Your task to perform on an android device: set an alarm Image 0: 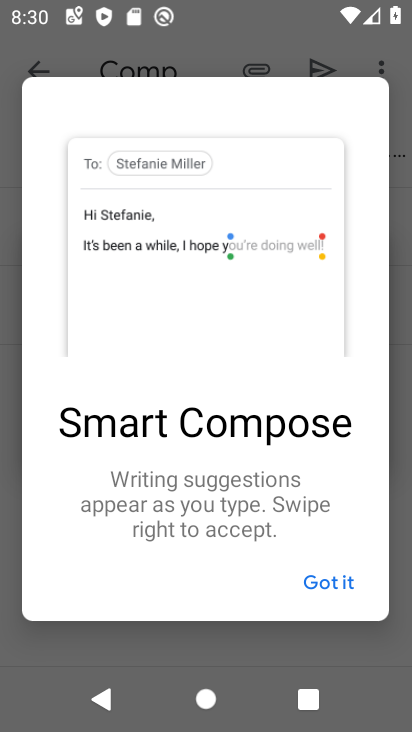
Step 0: press home button
Your task to perform on an android device: set an alarm Image 1: 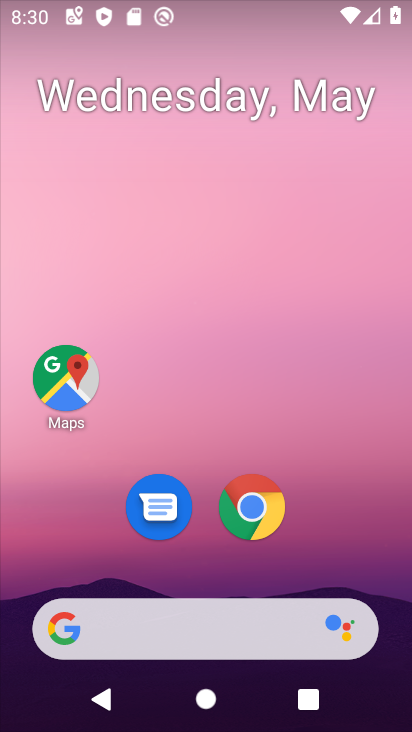
Step 1: drag from (280, 557) to (297, 317)
Your task to perform on an android device: set an alarm Image 2: 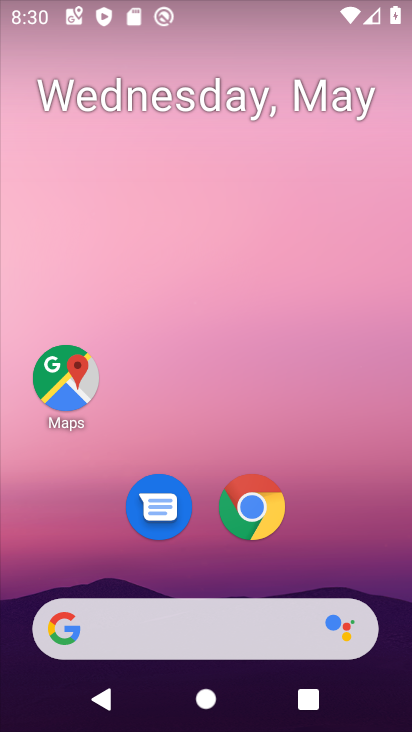
Step 2: drag from (225, 514) to (209, 244)
Your task to perform on an android device: set an alarm Image 3: 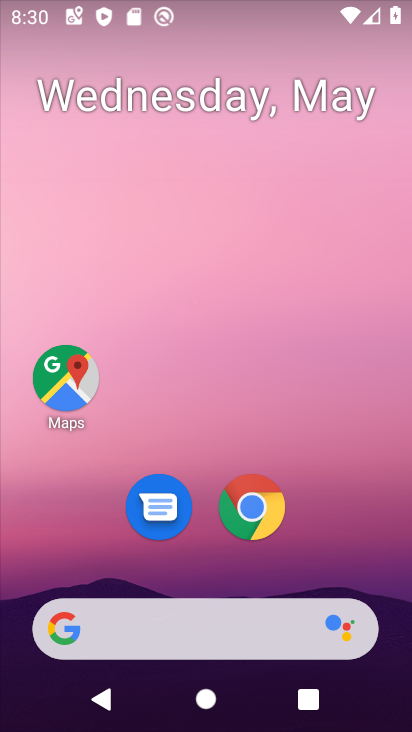
Step 3: drag from (316, 566) to (305, 278)
Your task to perform on an android device: set an alarm Image 4: 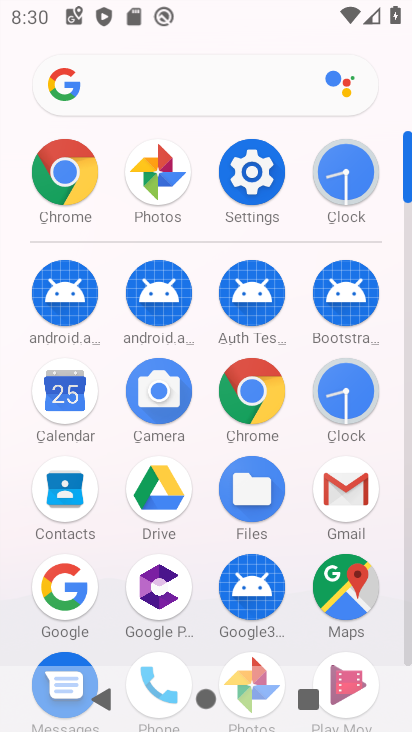
Step 4: click (352, 372)
Your task to perform on an android device: set an alarm Image 5: 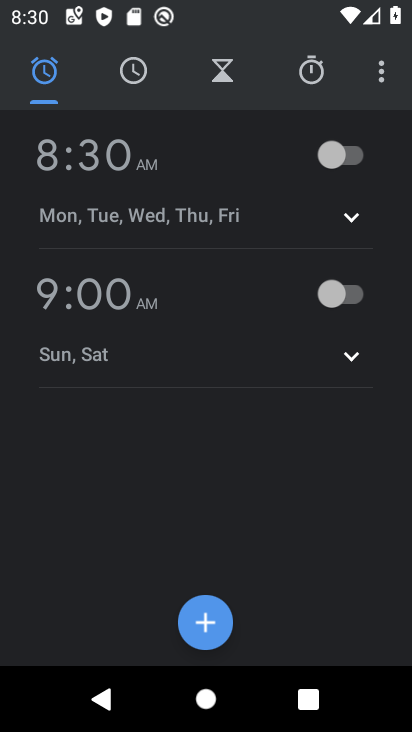
Step 5: click (364, 152)
Your task to perform on an android device: set an alarm Image 6: 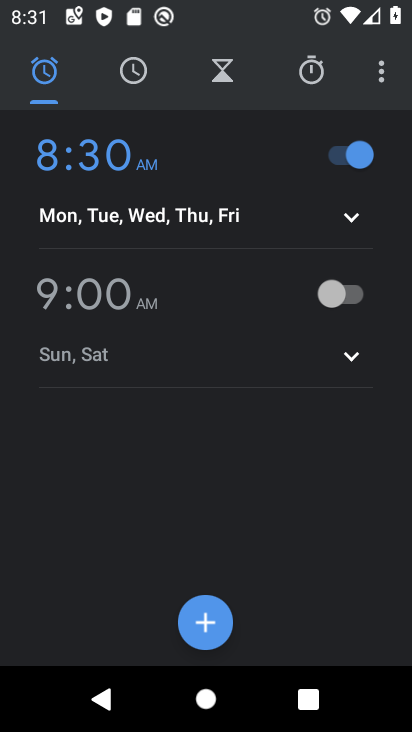
Step 6: task complete